Your task to perform on an android device: clear all cookies in the chrome app Image 0: 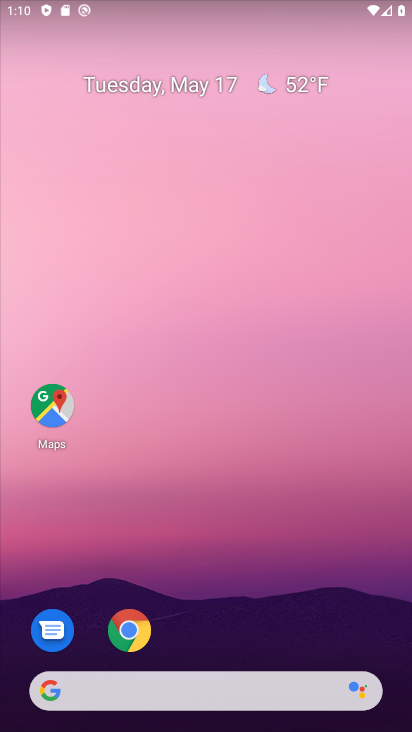
Step 0: click (132, 632)
Your task to perform on an android device: clear all cookies in the chrome app Image 1: 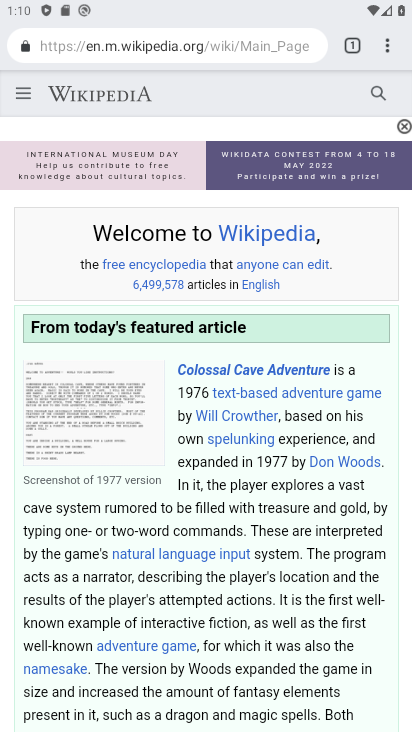
Step 1: click (386, 37)
Your task to perform on an android device: clear all cookies in the chrome app Image 2: 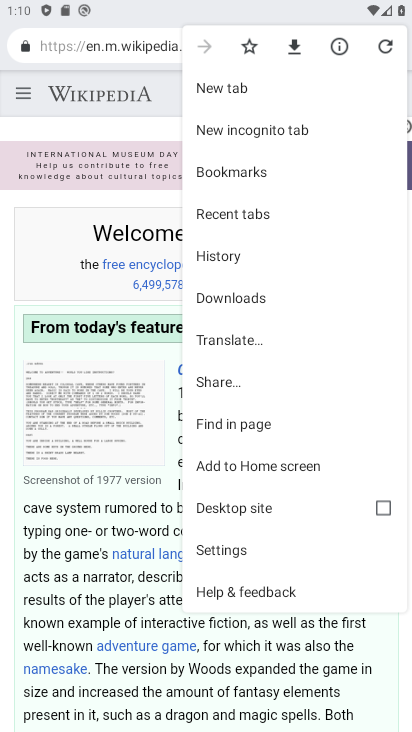
Step 2: click (234, 246)
Your task to perform on an android device: clear all cookies in the chrome app Image 3: 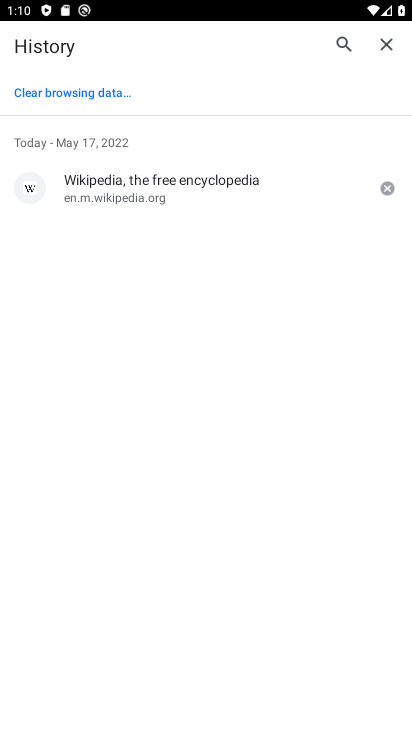
Step 3: click (65, 88)
Your task to perform on an android device: clear all cookies in the chrome app Image 4: 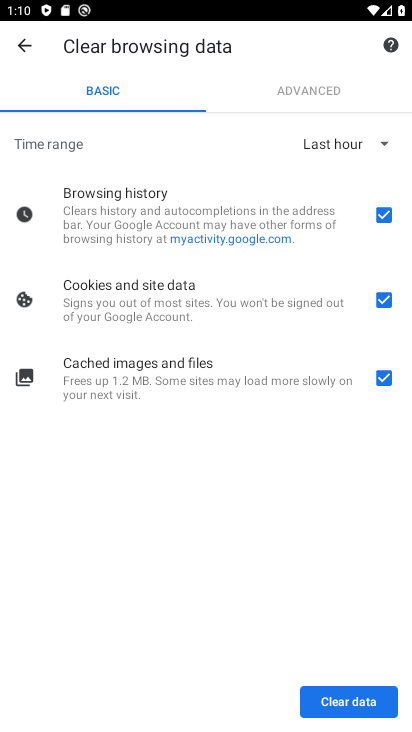
Step 4: click (382, 216)
Your task to perform on an android device: clear all cookies in the chrome app Image 5: 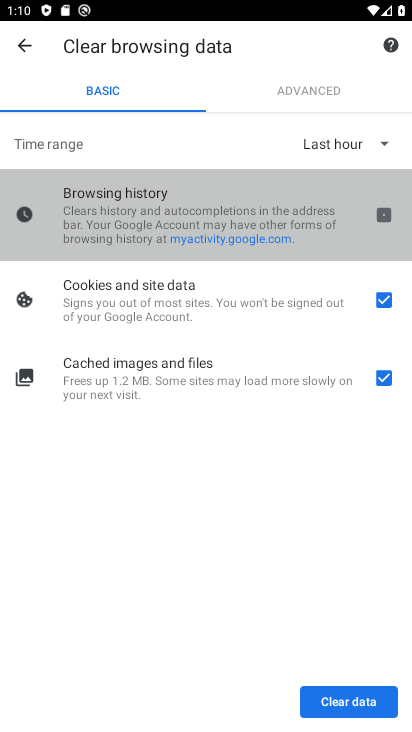
Step 5: click (388, 373)
Your task to perform on an android device: clear all cookies in the chrome app Image 6: 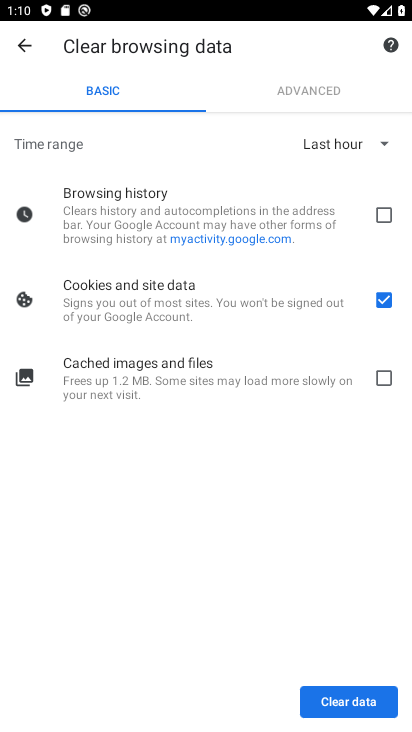
Step 6: click (331, 718)
Your task to perform on an android device: clear all cookies in the chrome app Image 7: 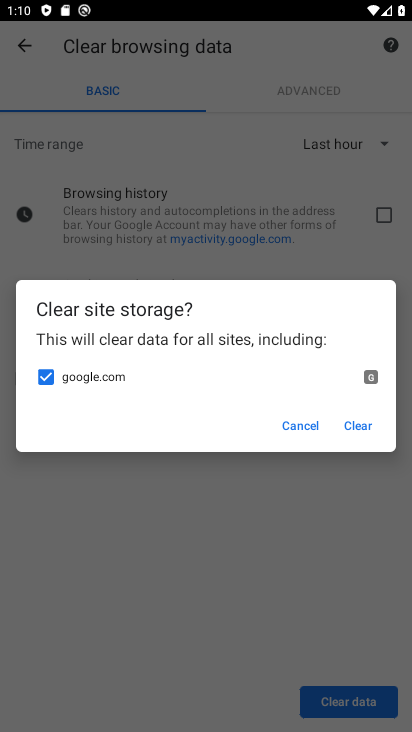
Step 7: click (367, 432)
Your task to perform on an android device: clear all cookies in the chrome app Image 8: 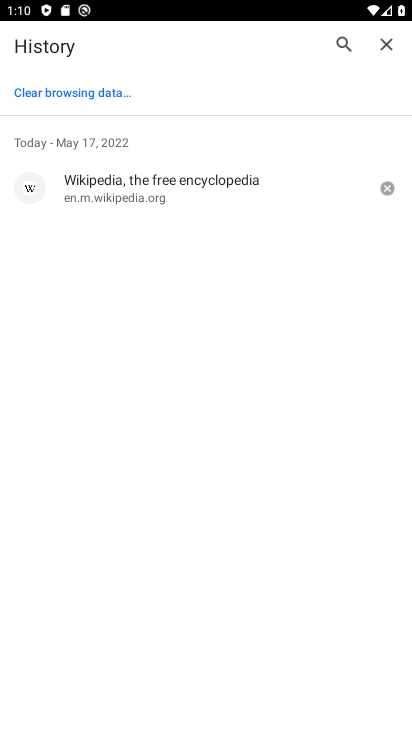
Step 8: task complete